Your task to perform on an android device: Open privacy settings Image 0: 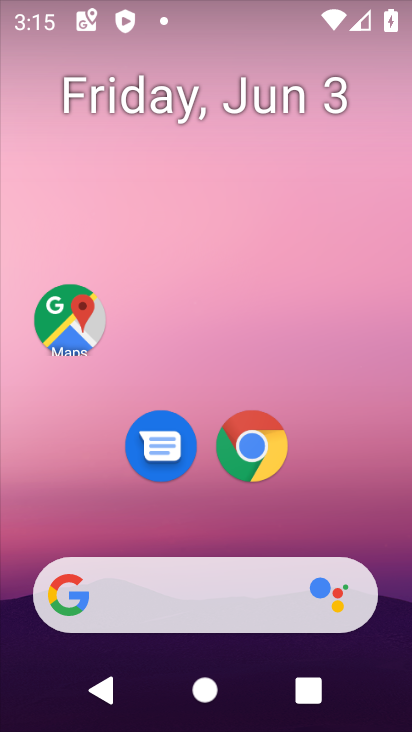
Step 0: drag from (353, 499) to (199, 62)
Your task to perform on an android device: Open privacy settings Image 1: 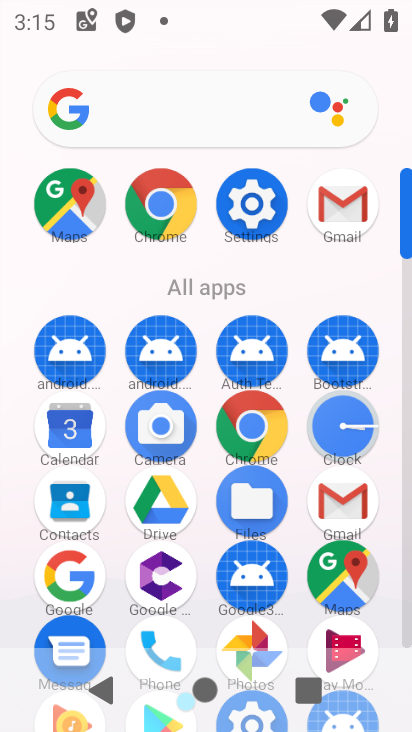
Step 1: click (256, 231)
Your task to perform on an android device: Open privacy settings Image 2: 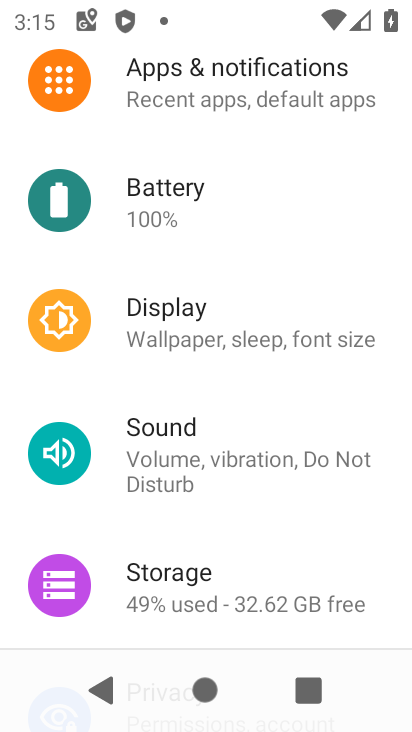
Step 2: drag from (255, 643) to (204, 396)
Your task to perform on an android device: Open privacy settings Image 3: 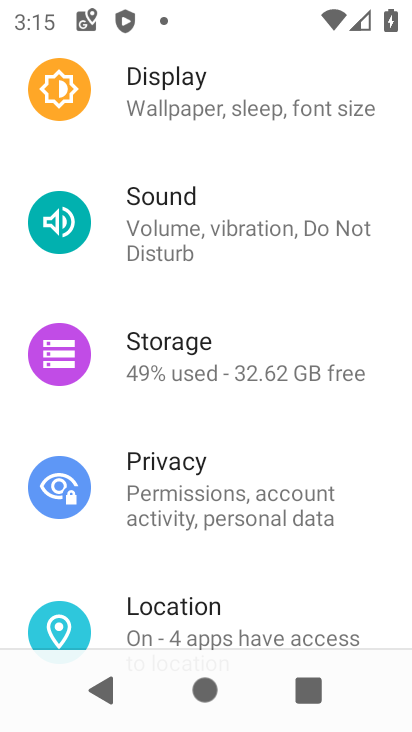
Step 3: click (214, 525)
Your task to perform on an android device: Open privacy settings Image 4: 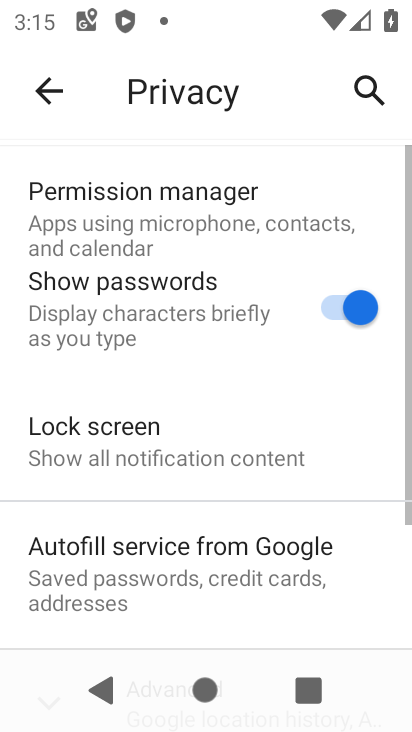
Step 4: task complete